Your task to perform on an android device: When is my next meeting? Image 0: 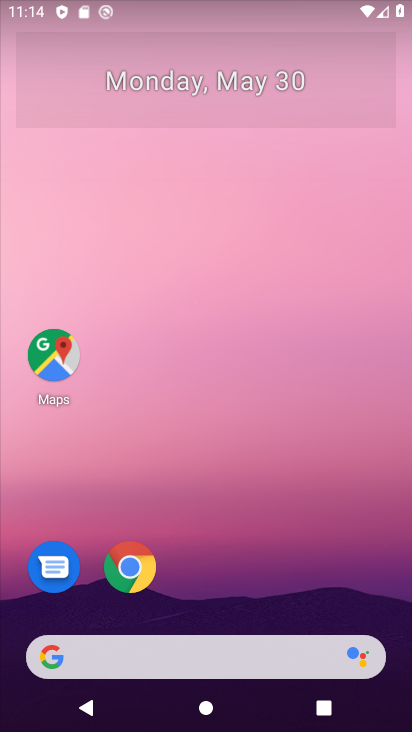
Step 0: drag from (355, 567) to (335, 130)
Your task to perform on an android device: When is my next meeting? Image 1: 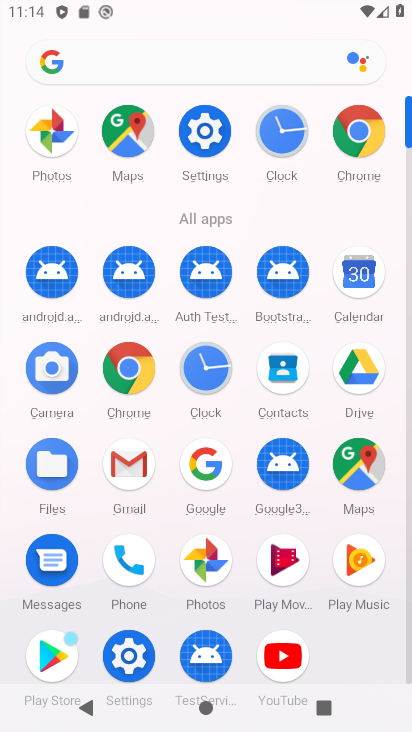
Step 1: click (138, 363)
Your task to perform on an android device: When is my next meeting? Image 2: 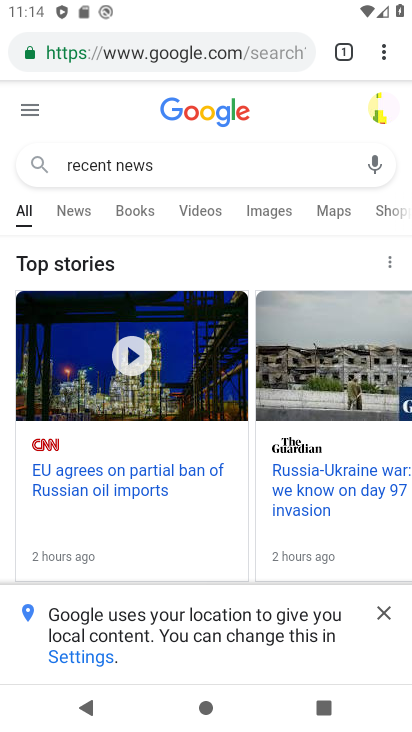
Step 2: click (338, 46)
Your task to perform on an android device: When is my next meeting? Image 3: 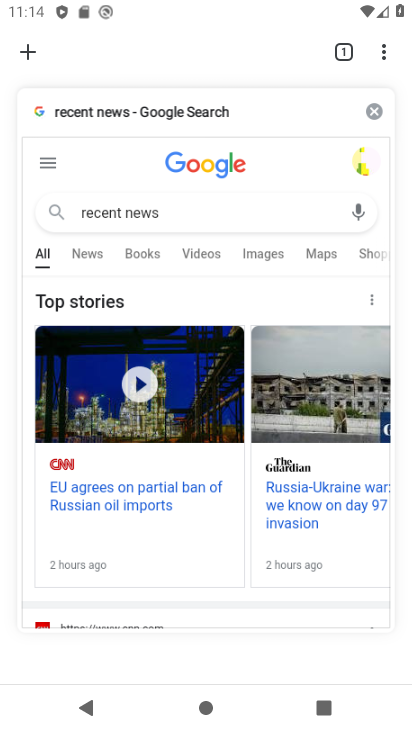
Step 3: click (34, 53)
Your task to perform on an android device: When is my next meeting? Image 4: 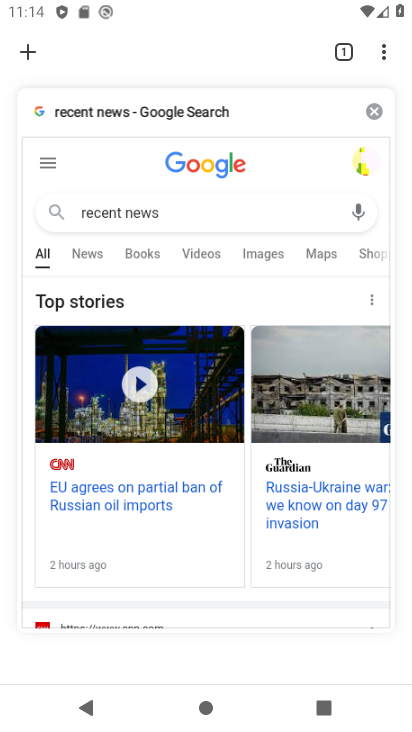
Step 4: click (34, 49)
Your task to perform on an android device: When is my next meeting? Image 5: 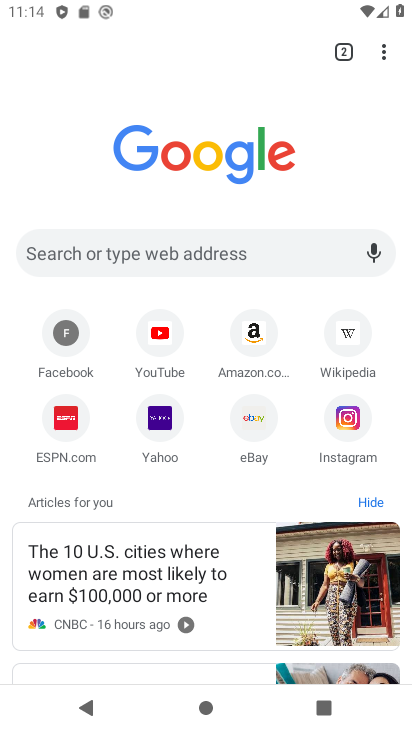
Step 5: press home button
Your task to perform on an android device: When is my next meeting? Image 6: 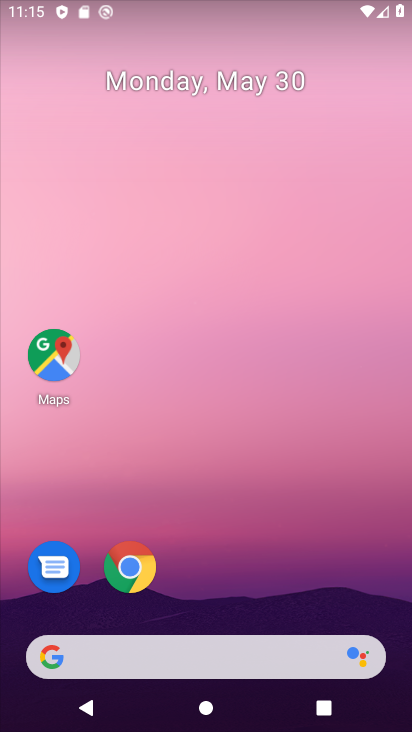
Step 6: drag from (373, 592) to (359, 59)
Your task to perform on an android device: When is my next meeting? Image 7: 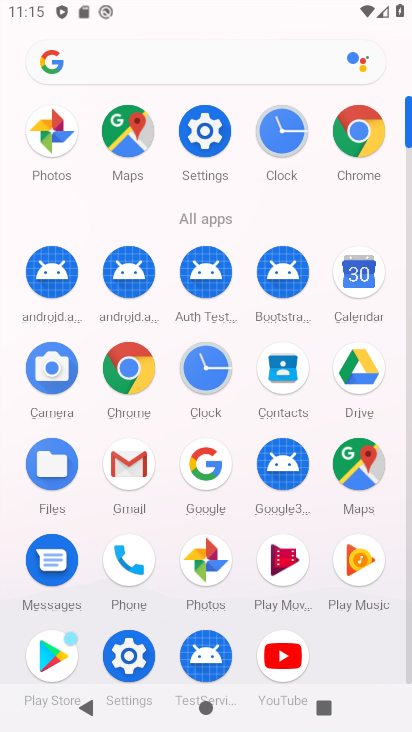
Step 7: click (351, 287)
Your task to perform on an android device: When is my next meeting? Image 8: 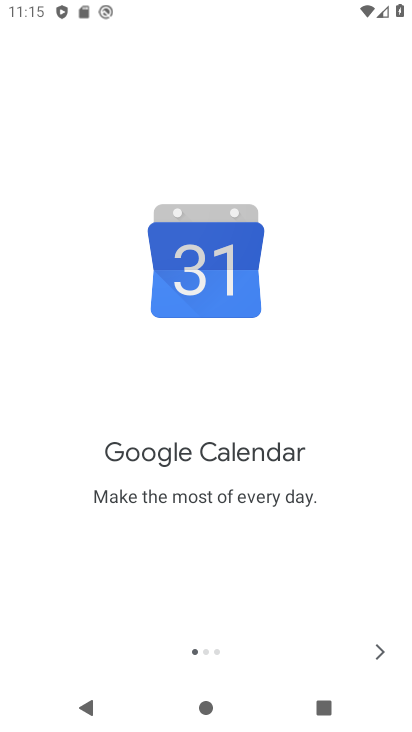
Step 8: click (381, 658)
Your task to perform on an android device: When is my next meeting? Image 9: 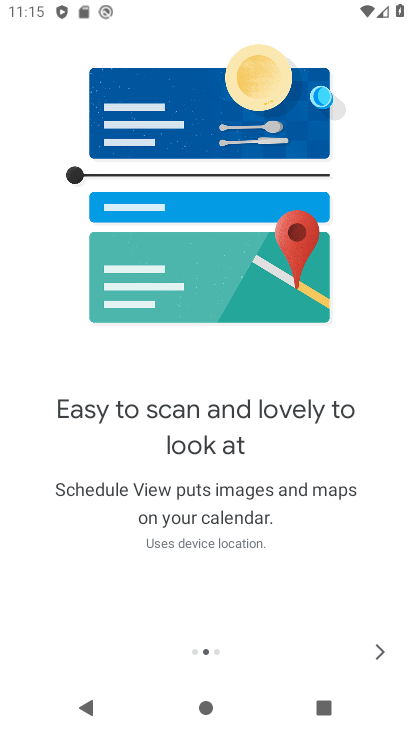
Step 9: click (381, 657)
Your task to perform on an android device: When is my next meeting? Image 10: 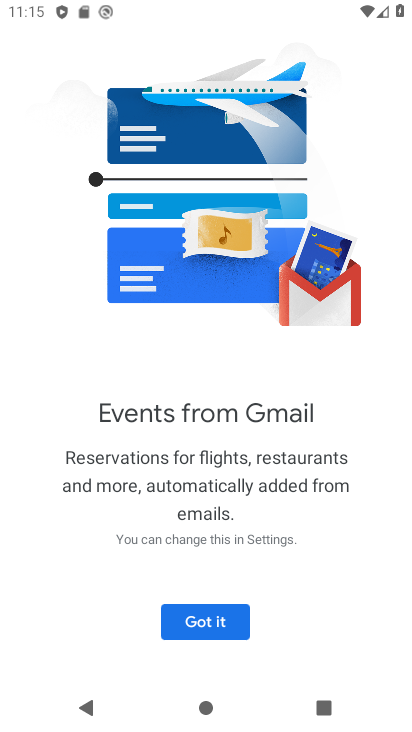
Step 10: click (182, 633)
Your task to perform on an android device: When is my next meeting? Image 11: 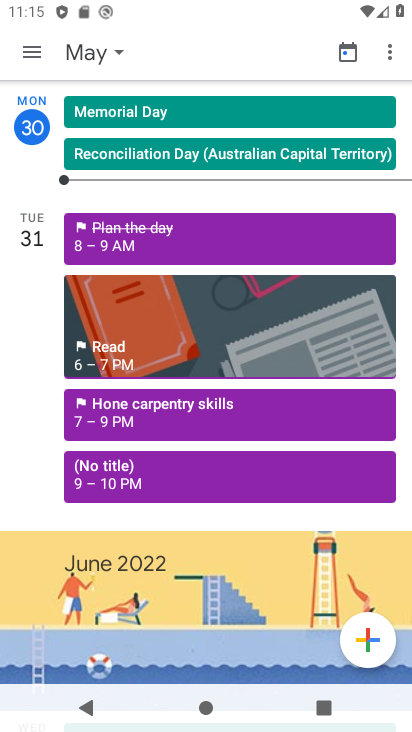
Step 11: task complete